Your task to perform on an android device: Play the last video I watched on Youtube Image 0: 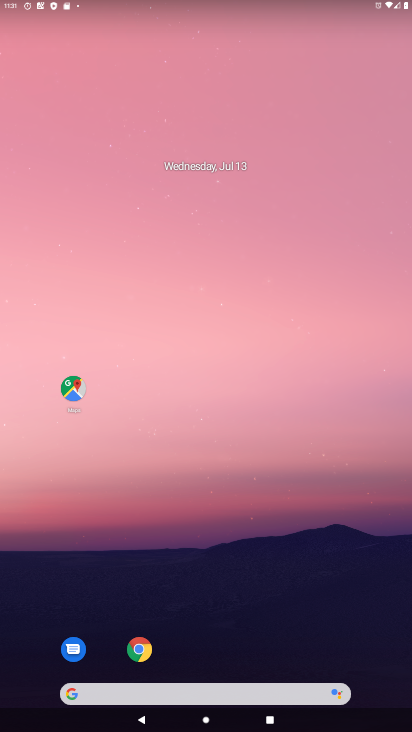
Step 0: drag from (181, 691) to (247, 162)
Your task to perform on an android device: Play the last video I watched on Youtube Image 1: 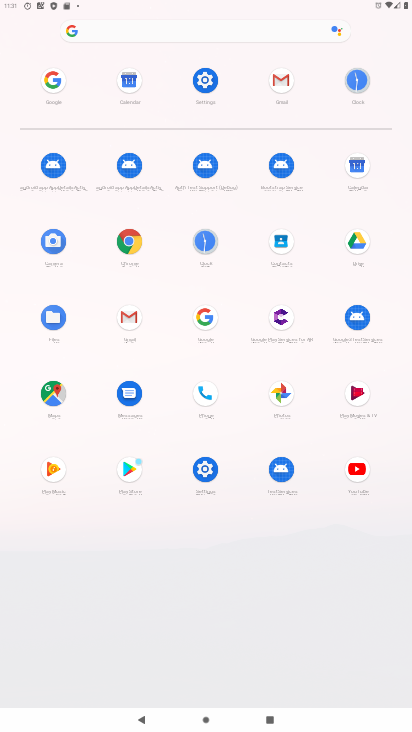
Step 1: click (356, 468)
Your task to perform on an android device: Play the last video I watched on Youtube Image 2: 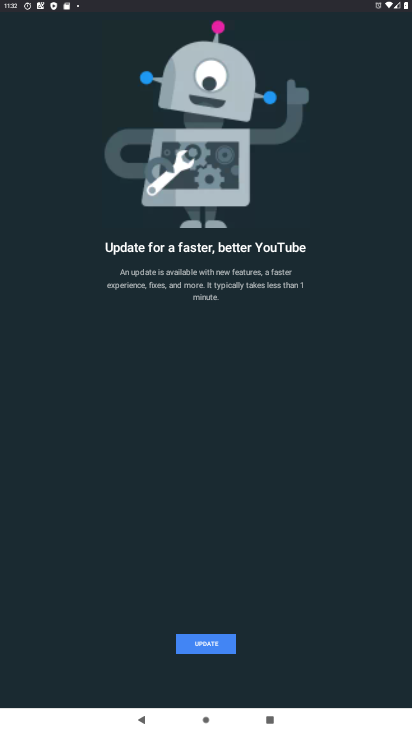
Step 2: click (206, 644)
Your task to perform on an android device: Play the last video I watched on Youtube Image 3: 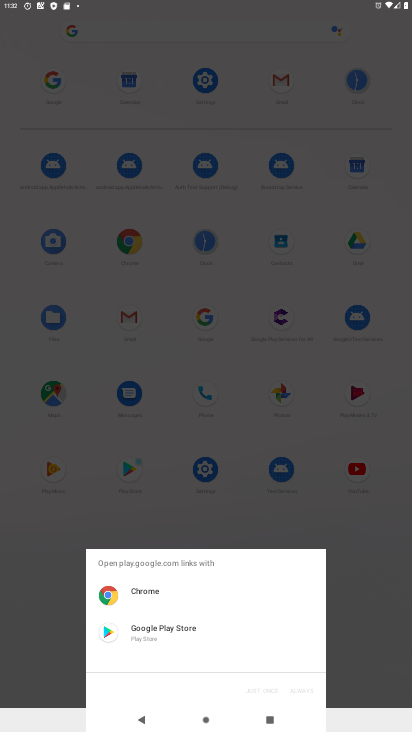
Step 3: click (159, 635)
Your task to perform on an android device: Play the last video I watched on Youtube Image 4: 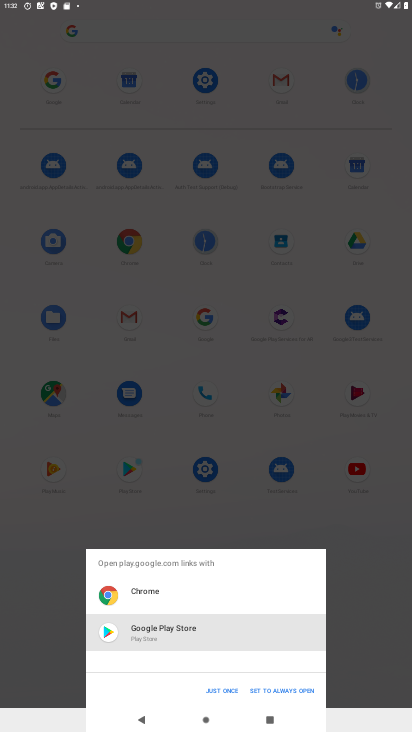
Step 4: click (213, 687)
Your task to perform on an android device: Play the last video I watched on Youtube Image 5: 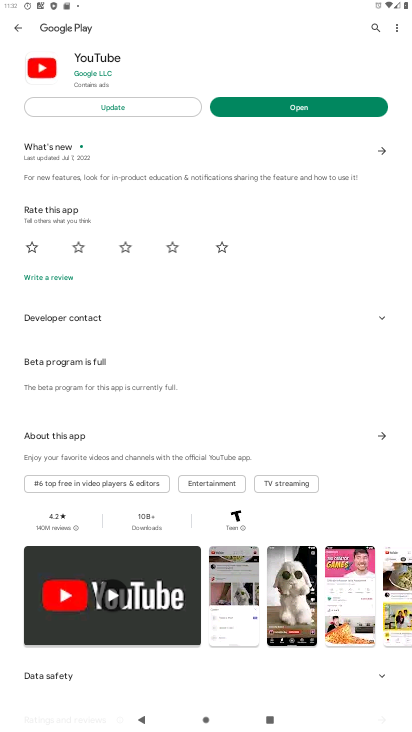
Step 5: click (119, 106)
Your task to perform on an android device: Play the last video I watched on Youtube Image 6: 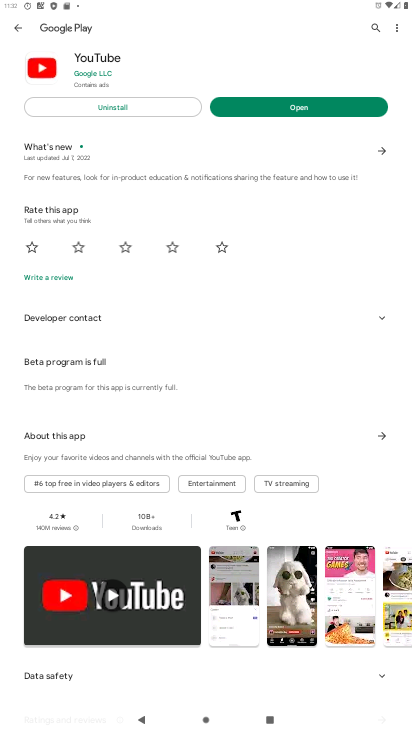
Step 6: click (302, 104)
Your task to perform on an android device: Play the last video I watched on Youtube Image 7: 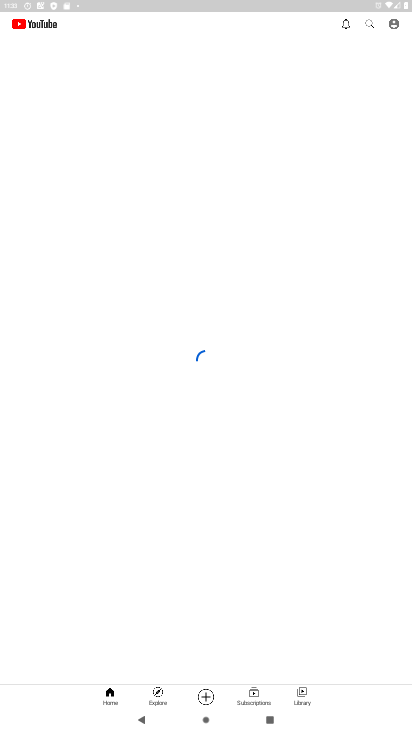
Step 7: click (302, 694)
Your task to perform on an android device: Play the last video I watched on Youtube Image 8: 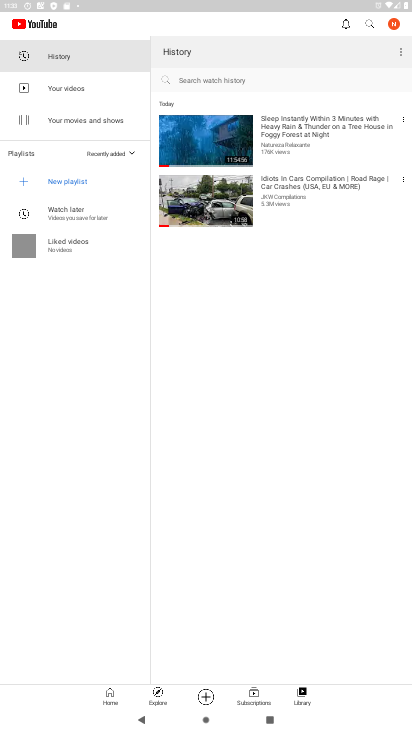
Step 8: click (281, 145)
Your task to perform on an android device: Play the last video I watched on Youtube Image 9: 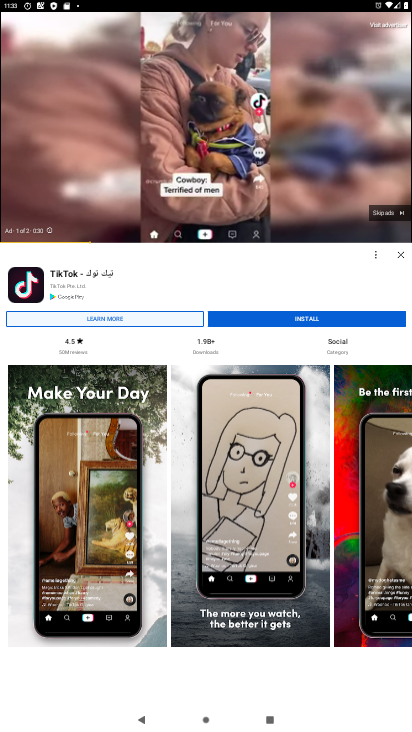
Step 9: click (383, 210)
Your task to perform on an android device: Play the last video I watched on Youtube Image 10: 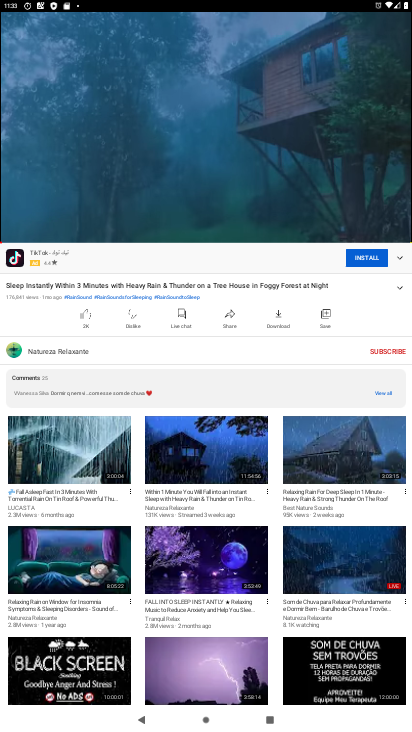
Step 10: click (227, 135)
Your task to perform on an android device: Play the last video I watched on Youtube Image 11: 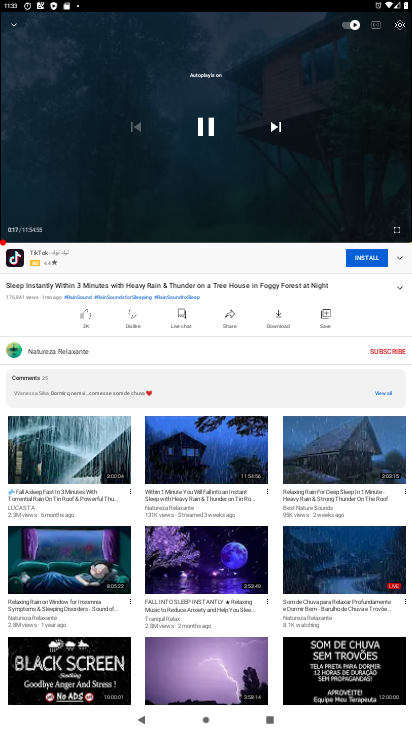
Step 11: click (208, 129)
Your task to perform on an android device: Play the last video I watched on Youtube Image 12: 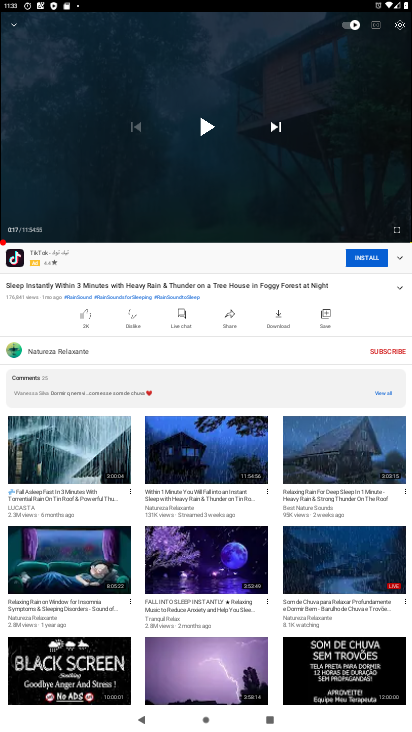
Step 12: task complete